Your task to perform on an android device: toggle location history Image 0: 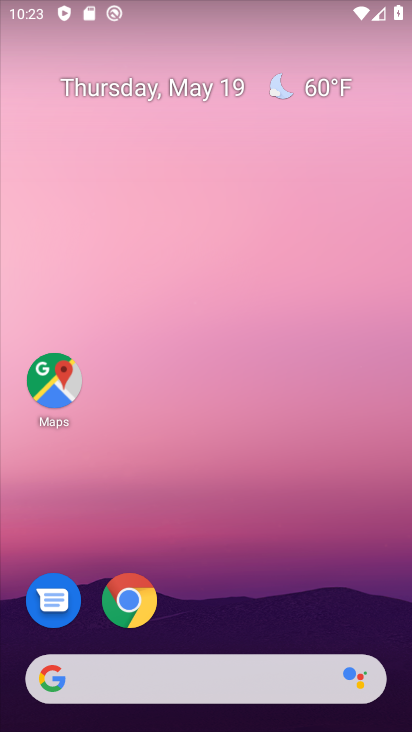
Step 0: drag from (377, 565) to (364, 170)
Your task to perform on an android device: toggle location history Image 1: 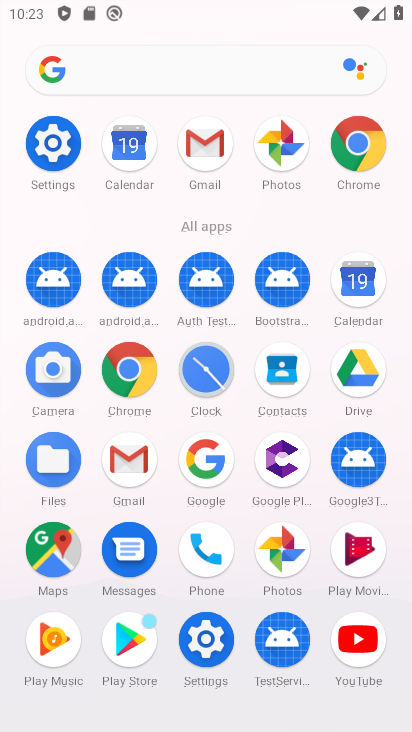
Step 1: click (200, 632)
Your task to perform on an android device: toggle location history Image 2: 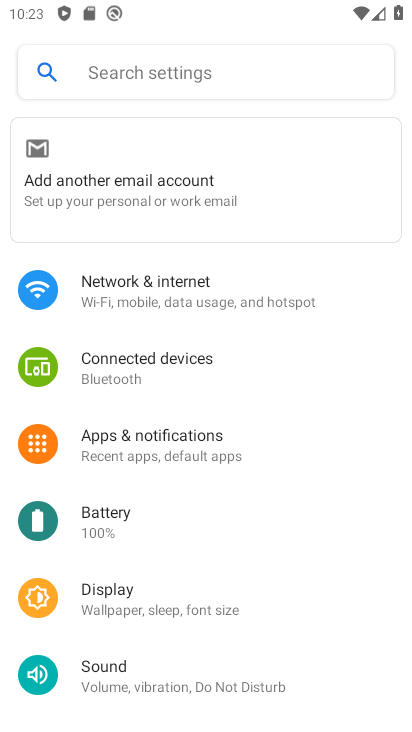
Step 2: drag from (339, 598) to (341, 512)
Your task to perform on an android device: toggle location history Image 3: 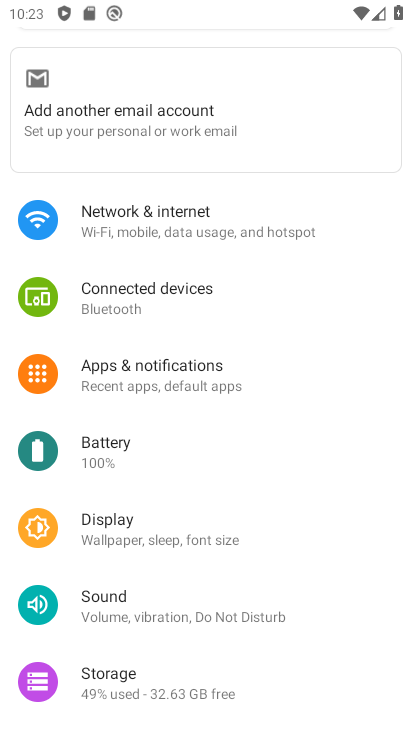
Step 3: drag from (345, 644) to (344, 557)
Your task to perform on an android device: toggle location history Image 4: 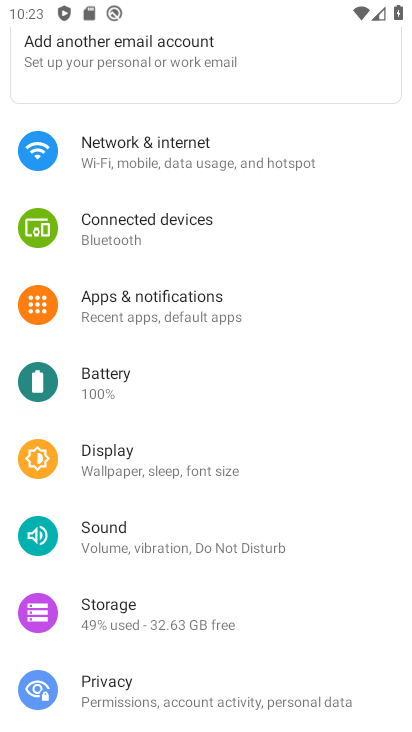
Step 4: drag from (346, 658) to (340, 569)
Your task to perform on an android device: toggle location history Image 5: 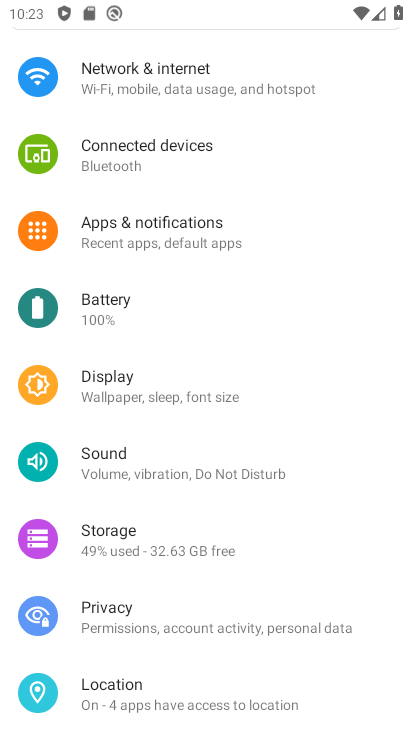
Step 5: drag from (347, 598) to (357, 480)
Your task to perform on an android device: toggle location history Image 6: 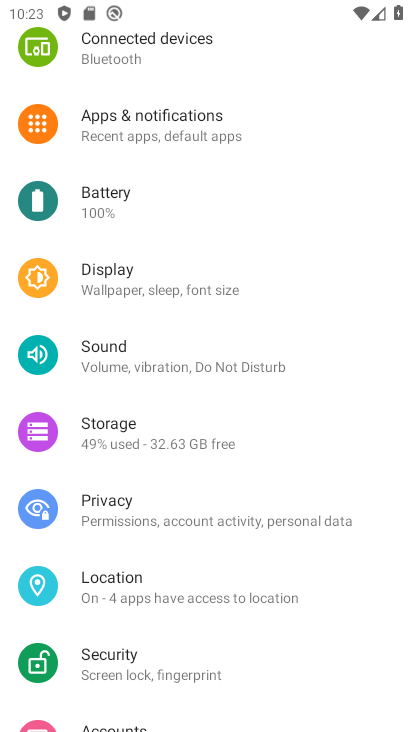
Step 6: drag from (364, 604) to (365, 497)
Your task to perform on an android device: toggle location history Image 7: 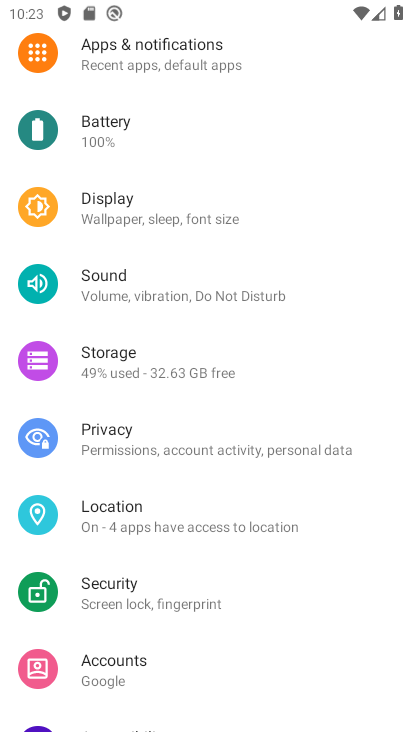
Step 7: drag from (346, 623) to (352, 552)
Your task to perform on an android device: toggle location history Image 8: 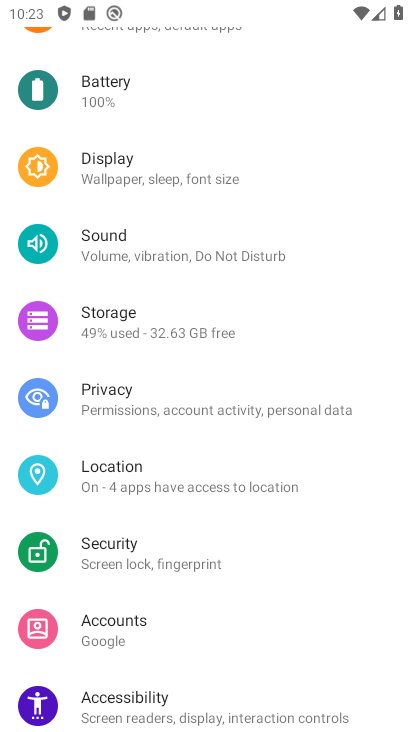
Step 8: drag from (363, 643) to (365, 544)
Your task to perform on an android device: toggle location history Image 9: 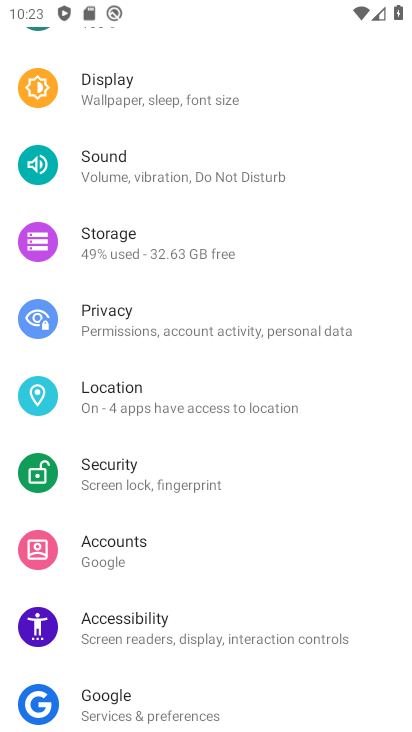
Step 9: click (263, 412)
Your task to perform on an android device: toggle location history Image 10: 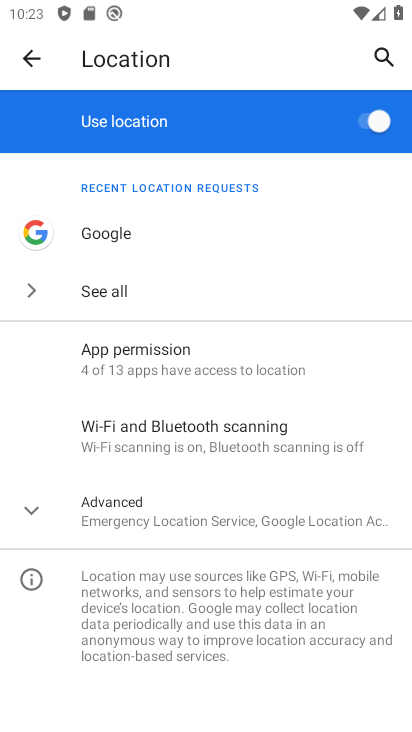
Step 10: click (228, 537)
Your task to perform on an android device: toggle location history Image 11: 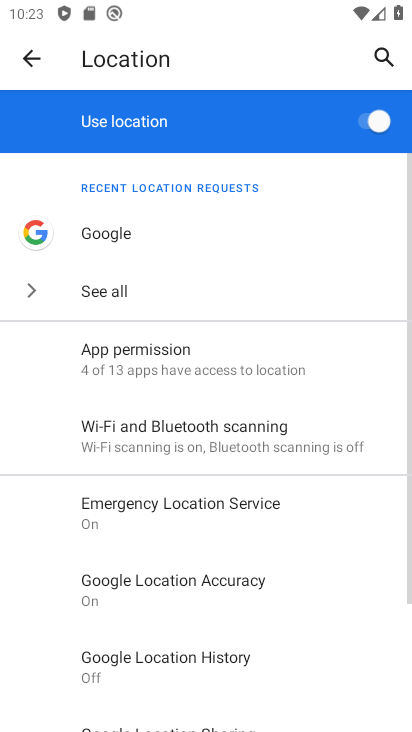
Step 11: drag from (323, 599) to (336, 503)
Your task to perform on an android device: toggle location history Image 12: 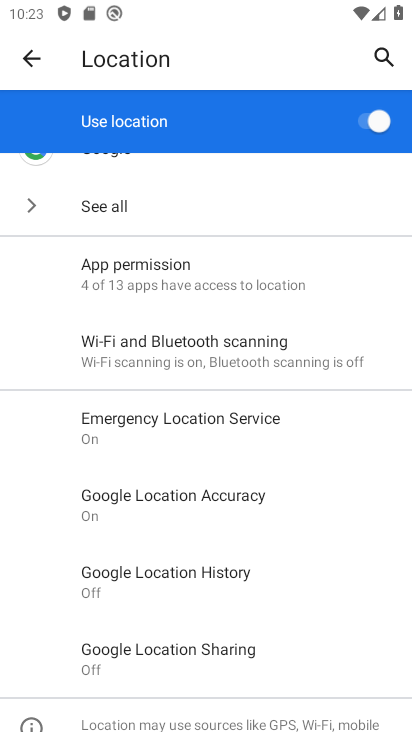
Step 12: drag from (334, 629) to (333, 550)
Your task to perform on an android device: toggle location history Image 13: 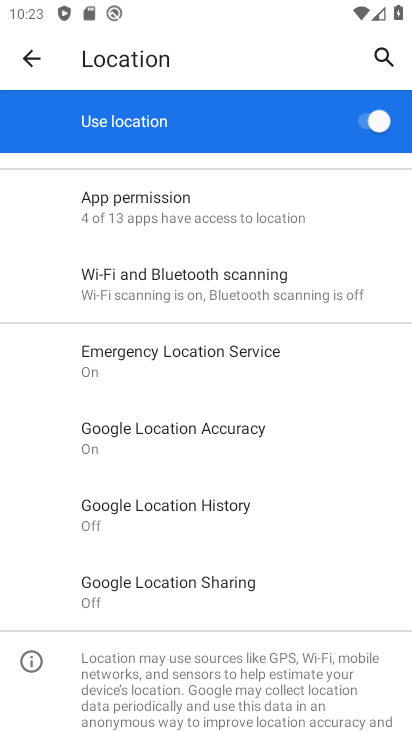
Step 13: click (234, 511)
Your task to perform on an android device: toggle location history Image 14: 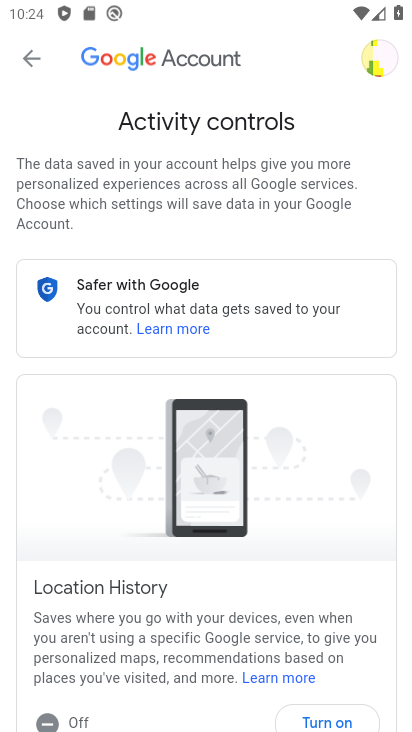
Step 14: drag from (288, 640) to (287, 485)
Your task to perform on an android device: toggle location history Image 15: 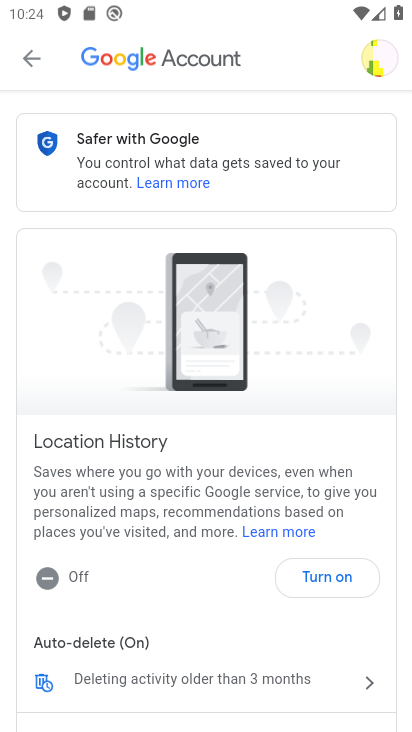
Step 15: click (303, 573)
Your task to perform on an android device: toggle location history Image 16: 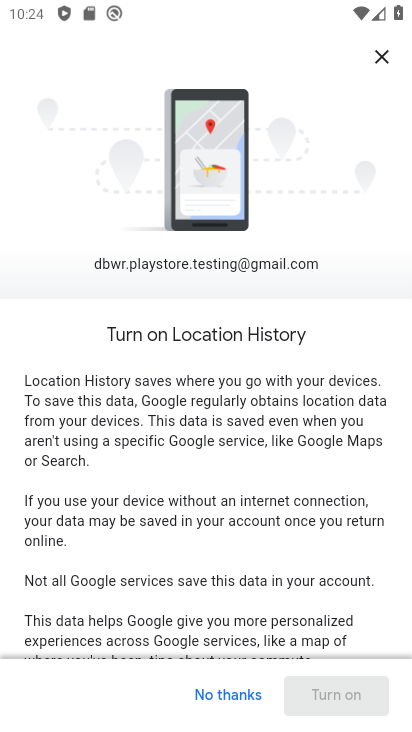
Step 16: drag from (265, 568) to (259, 408)
Your task to perform on an android device: toggle location history Image 17: 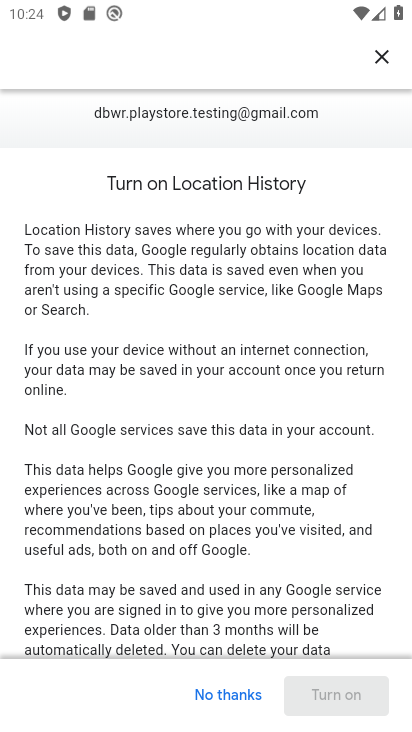
Step 17: drag from (261, 533) to (269, 415)
Your task to perform on an android device: toggle location history Image 18: 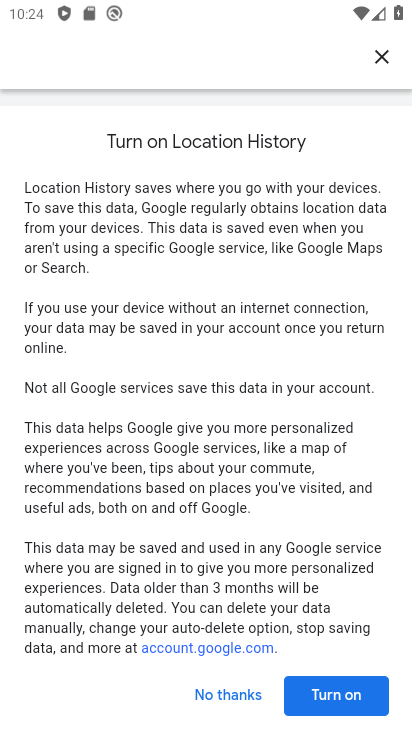
Step 18: click (312, 702)
Your task to perform on an android device: toggle location history Image 19: 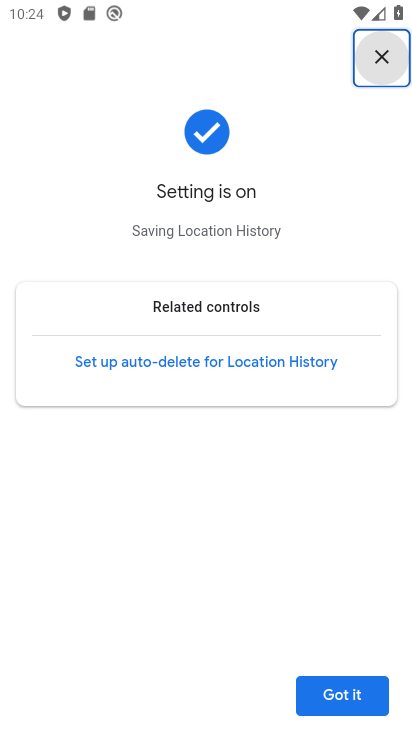
Step 19: task complete